Your task to perform on an android device: Search for pizza restaurants on Maps Image 0: 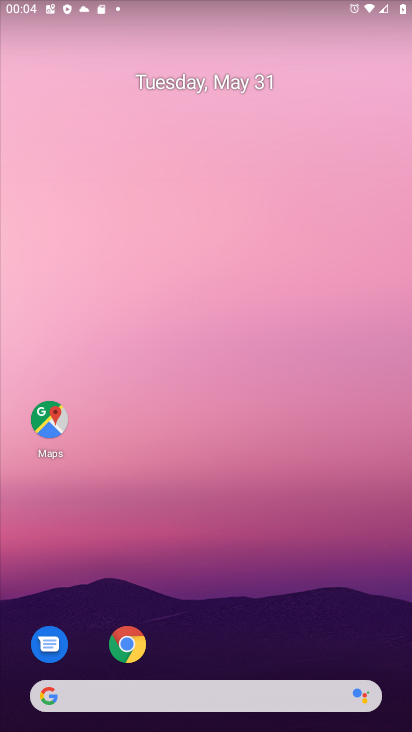
Step 0: click (52, 422)
Your task to perform on an android device: Search for pizza restaurants on Maps Image 1: 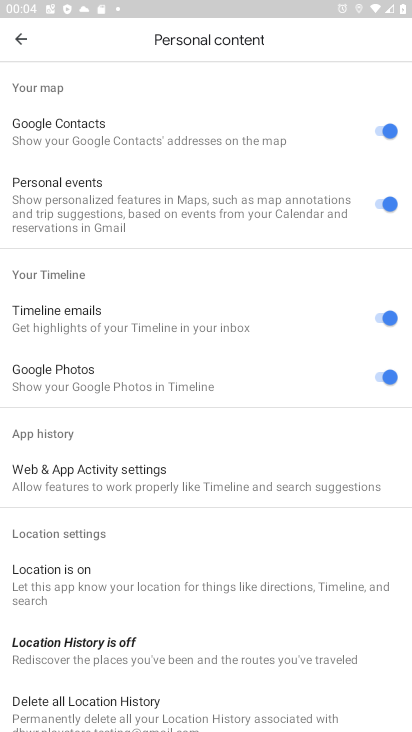
Step 1: press back button
Your task to perform on an android device: Search for pizza restaurants on Maps Image 2: 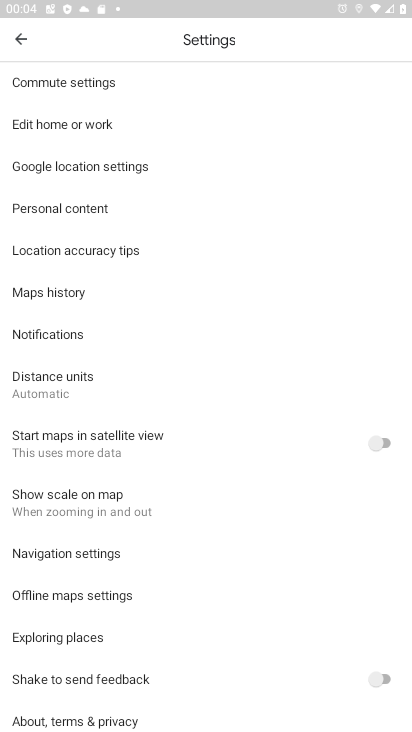
Step 2: press back button
Your task to perform on an android device: Search for pizza restaurants on Maps Image 3: 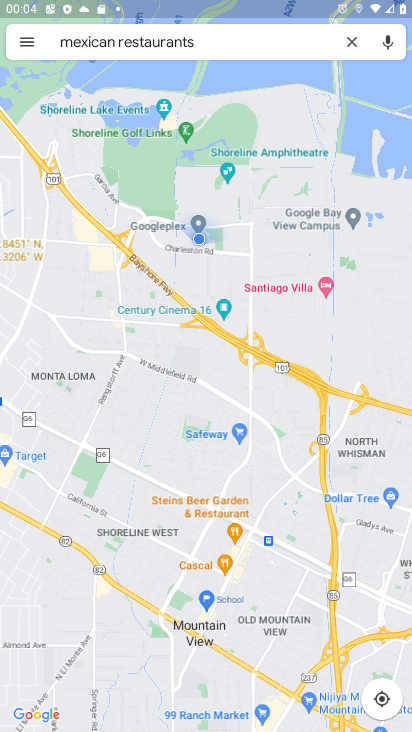
Step 3: click (355, 39)
Your task to perform on an android device: Search for pizza restaurants on Maps Image 4: 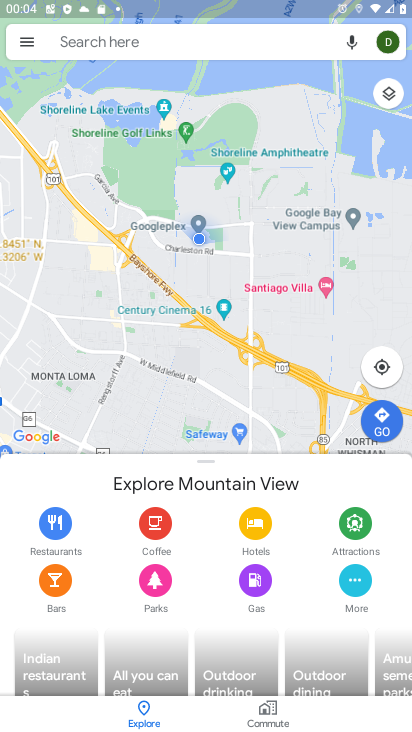
Step 4: click (141, 38)
Your task to perform on an android device: Search for pizza restaurants on Maps Image 5: 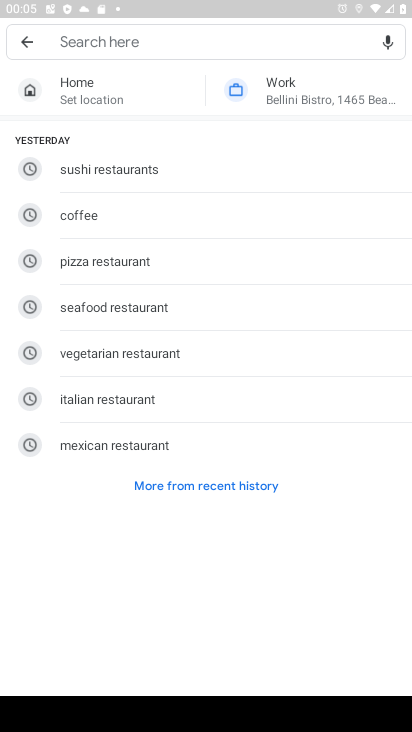
Step 5: type "pizza restaurants"
Your task to perform on an android device: Search for pizza restaurants on Maps Image 6: 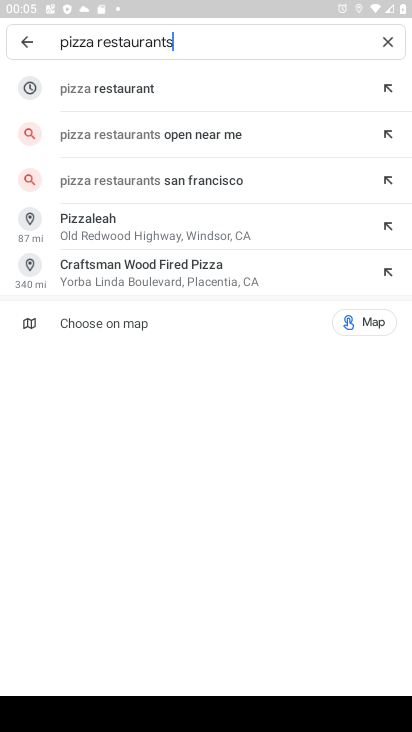
Step 6: click (81, 75)
Your task to perform on an android device: Search for pizza restaurants on Maps Image 7: 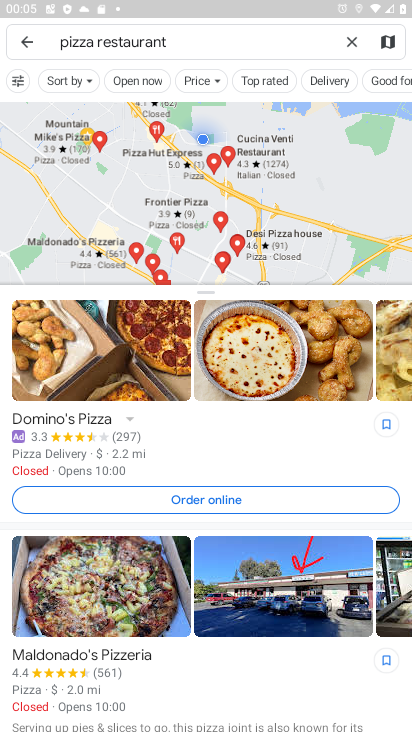
Step 7: task complete